Your task to perform on an android device: Go to internet settings Image 0: 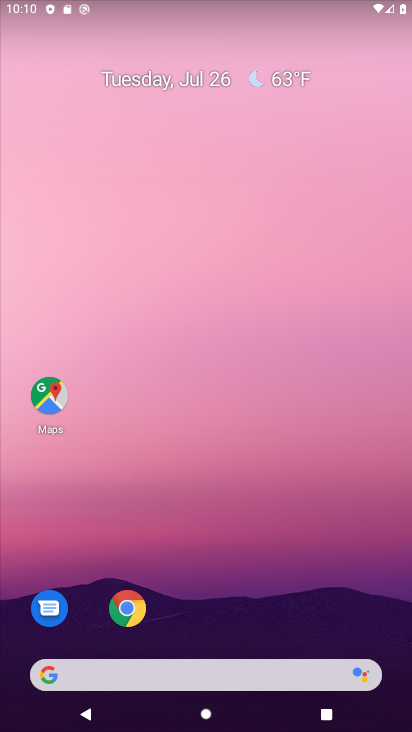
Step 0: press home button
Your task to perform on an android device: Go to internet settings Image 1: 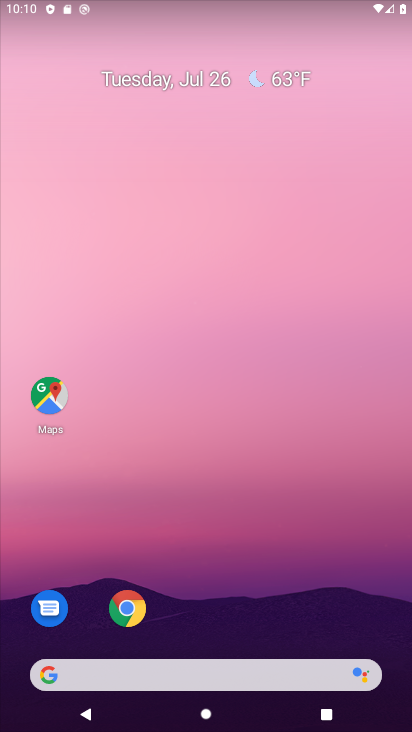
Step 1: press home button
Your task to perform on an android device: Go to internet settings Image 2: 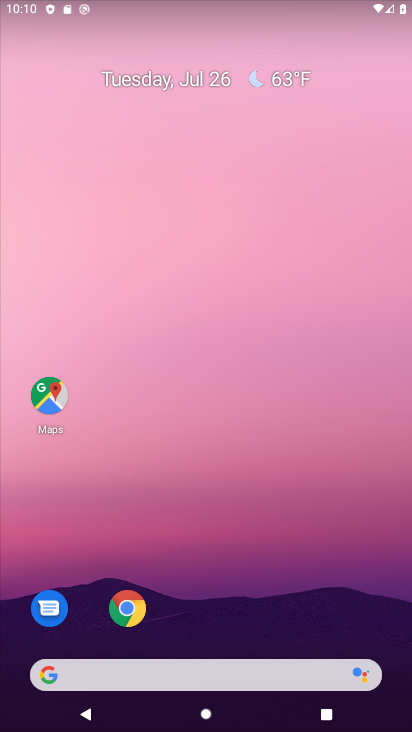
Step 2: press home button
Your task to perform on an android device: Go to internet settings Image 3: 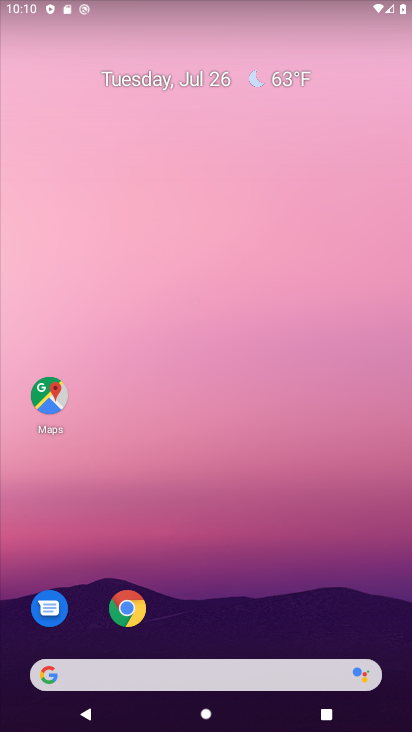
Step 3: press home button
Your task to perform on an android device: Go to internet settings Image 4: 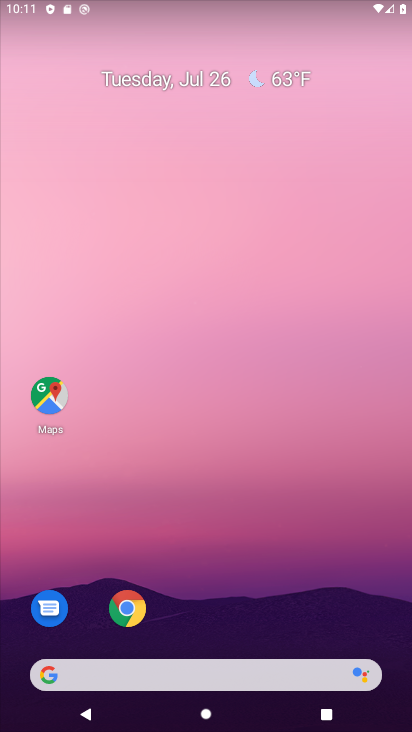
Step 4: press home button
Your task to perform on an android device: Go to internet settings Image 5: 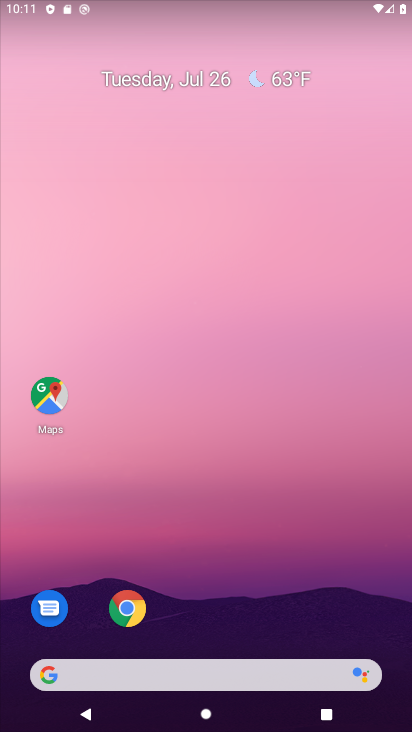
Step 5: drag from (226, 623) to (186, 110)
Your task to perform on an android device: Go to internet settings Image 6: 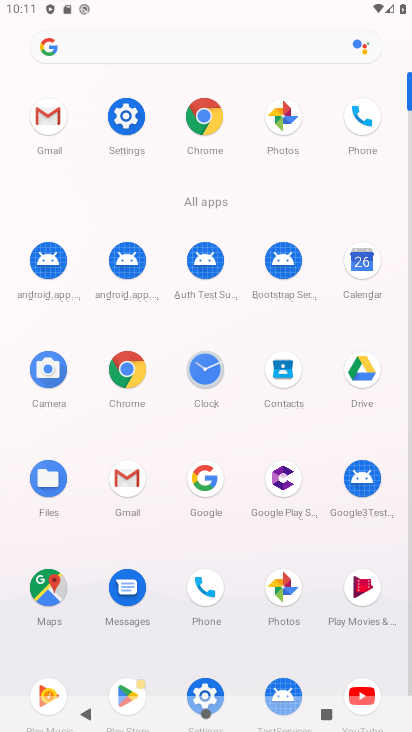
Step 6: click (122, 105)
Your task to perform on an android device: Go to internet settings Image 7: 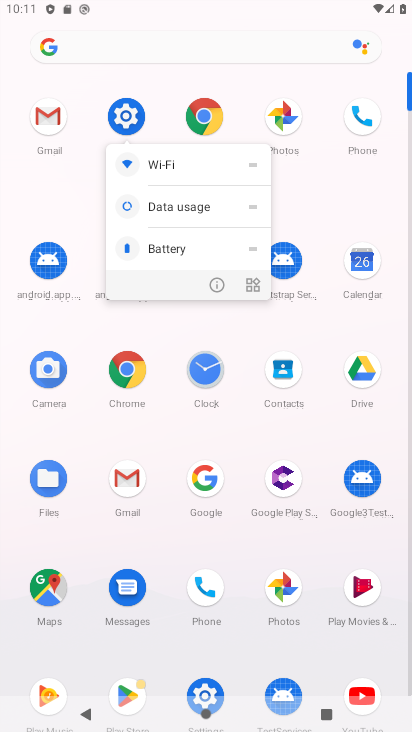
Step 7: click (122, 105)
Your task to perform on an android device: Go to internet settings Image 8: 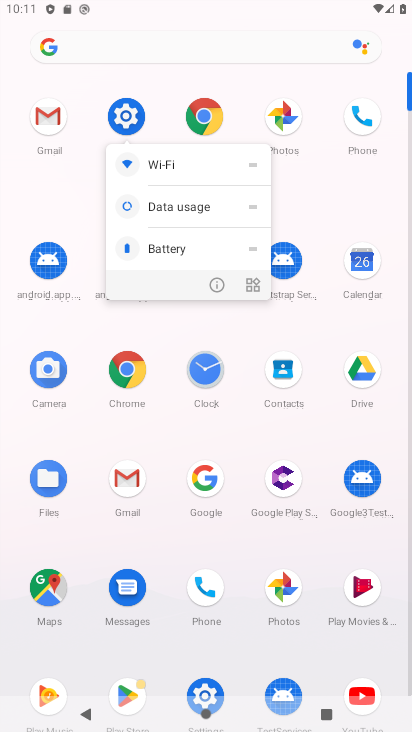
Step 8: click (122, 105)
Your task to perform on an android device: Go to internet settings Image 9: 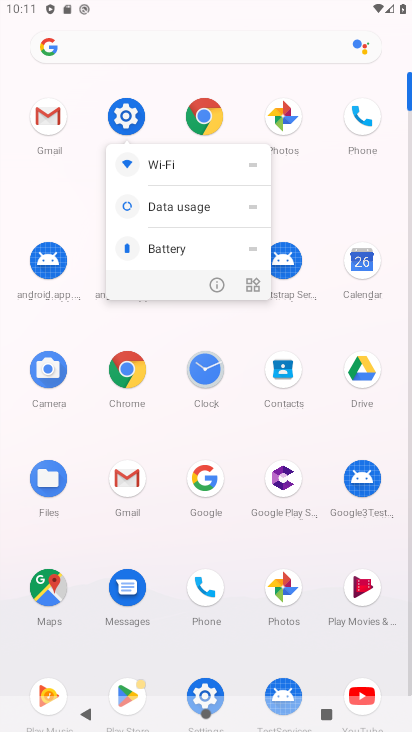
Step 9: click (122, 111)
Your task to perform on an android device: Go to internet settings Image 10: 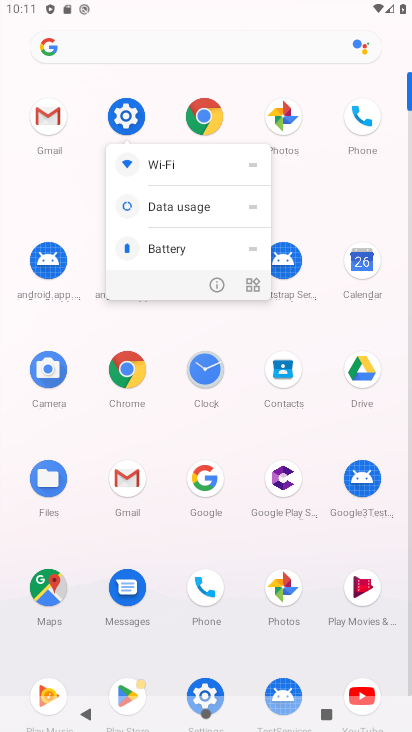
Step 10: click (108, 118)
Your task to perform on an android device: Go to internet settings Image 11: 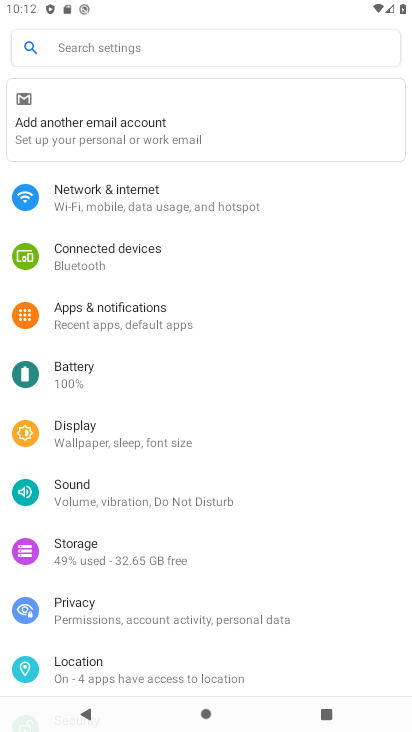
Step 11: drag from (108, 118) to (133, 38)
Your task to perform on an android device: Go to internet settings Image 12: 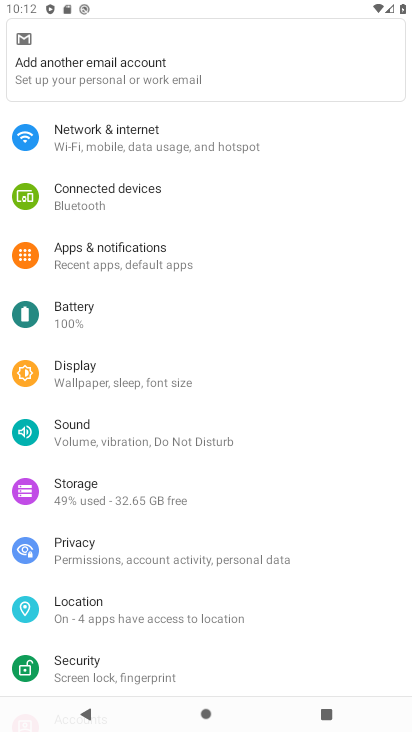
Step 12: click (107, 130)
Your task to perform on an android device: Go to internet settings Image 13: 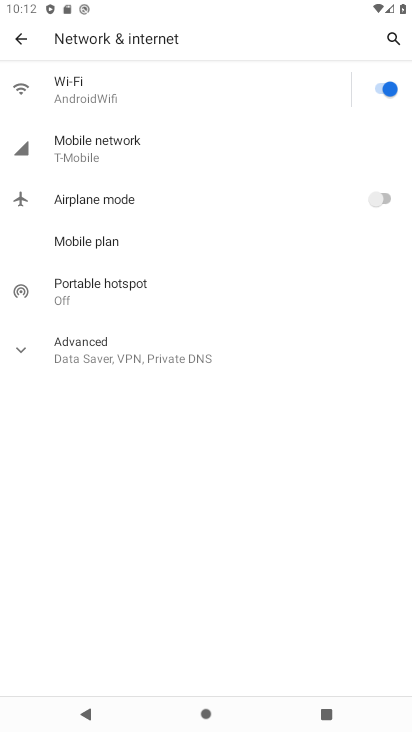
Step 13: task complete